Your task to perform on an android device: clear history in the chrome app Image 0: 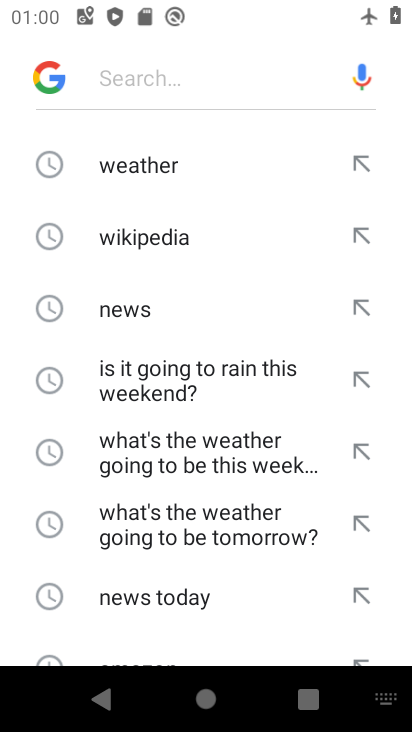
Step 0: press home button
Your task to perform on an android device: clear history in the chrome app Image 1: 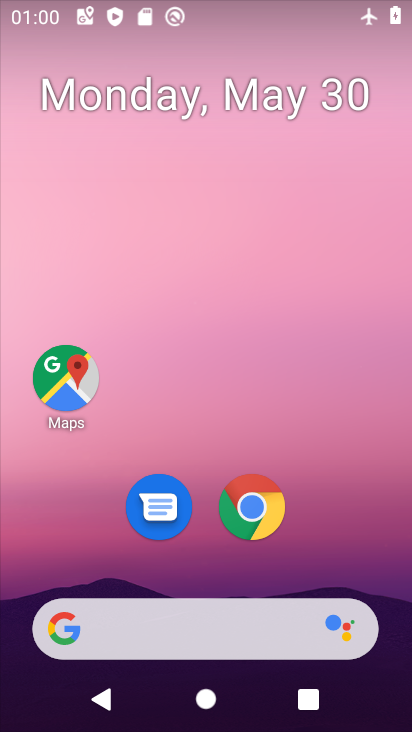
Step 1: drag from (306, 568) to (275, 244)
Your task to perform on an android device: clear history in the chrome app Image 2: 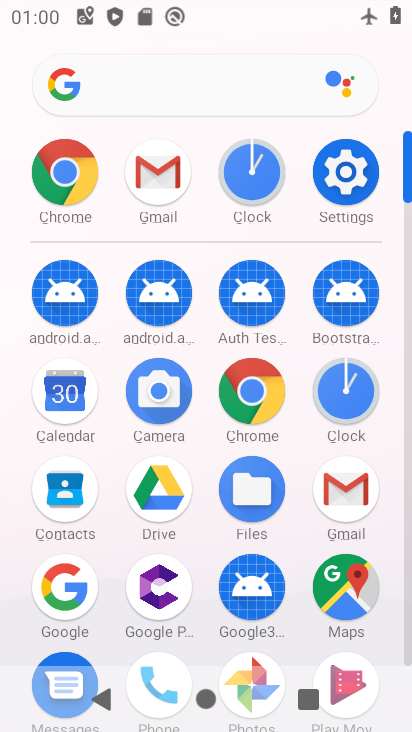
Step 2: click (239, 396)
Your task to perform on an android device: clear history in the chrome app Image 3: 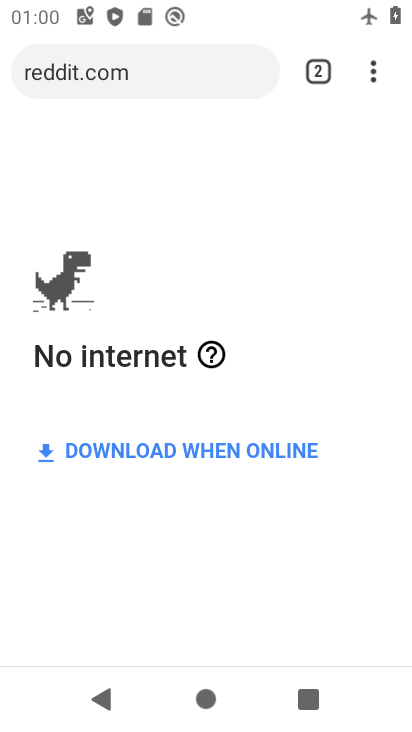
Step 3: click (372, 67)
Your task to perform on an android device: clear history in the chrome app Image 4: 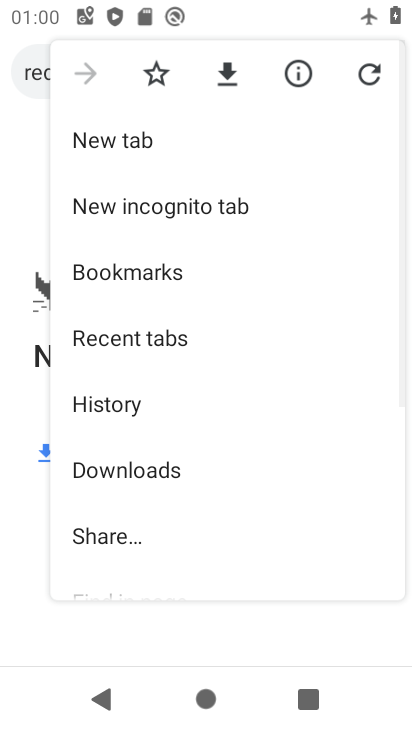
Step 4: click (156, 395)
Your task to perform on an android device: clear history in the chrome app Image 5: 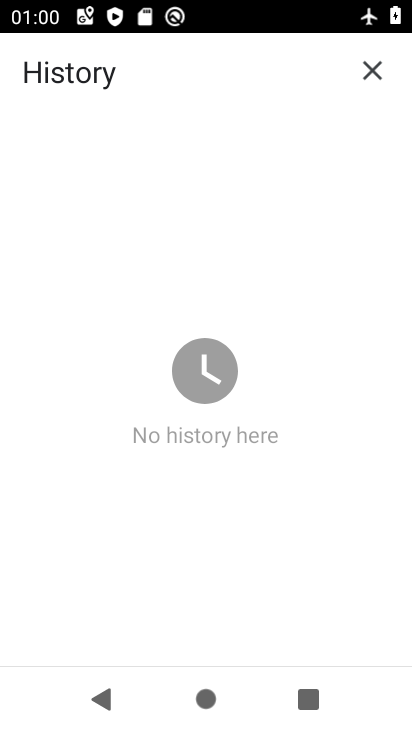
Step 5: task complete